Your task to perform on an android device: Open Google Chrome Image 0: 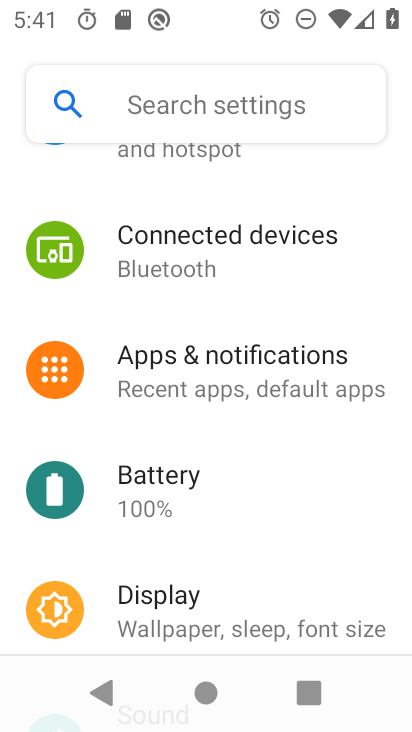
Step 0: press home button
Your task to perform on an android device: Open Google Chrome Image 1: 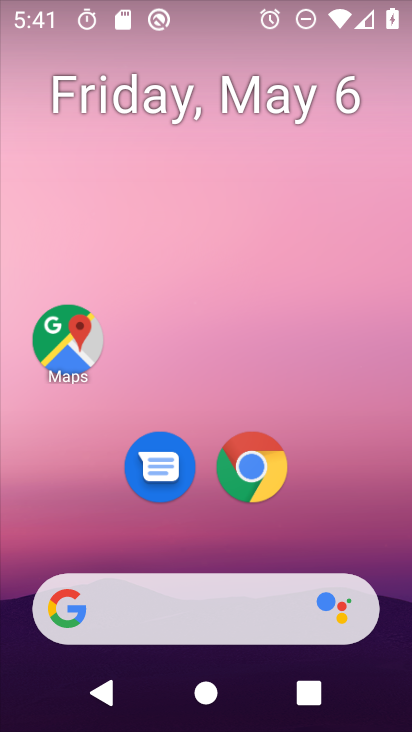
Step 1: click (259, 481)
Your task to perform on an android device: Open Google Chrome Image 2: 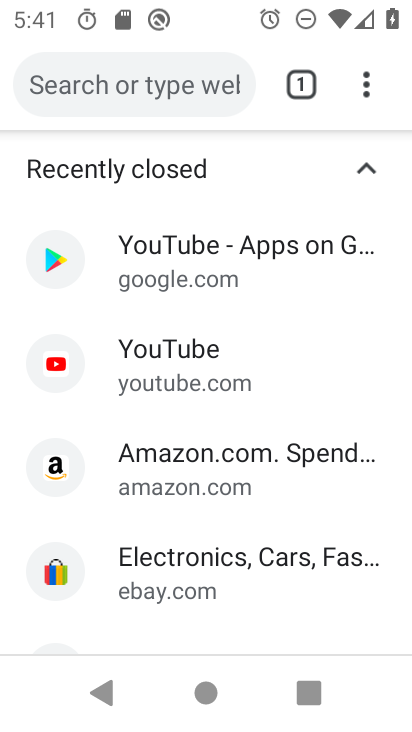
Step 2: task complete